Your task to perform on an android device: Go to network settings Image 0: 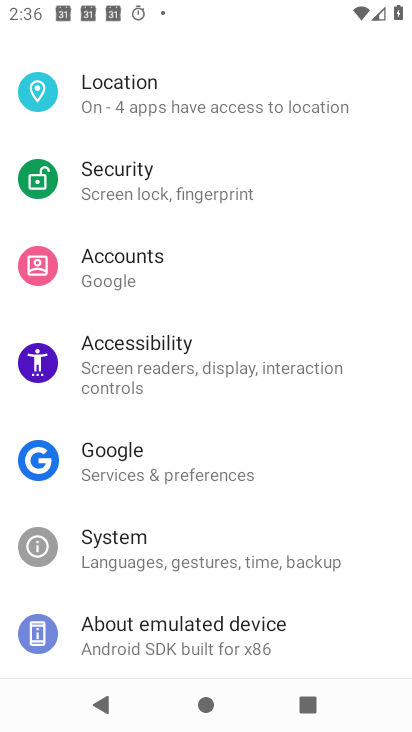
Step 0: drag from (122, 609) to (262, 87)
Your task to perform on an android device: Go to network settings Image 1: 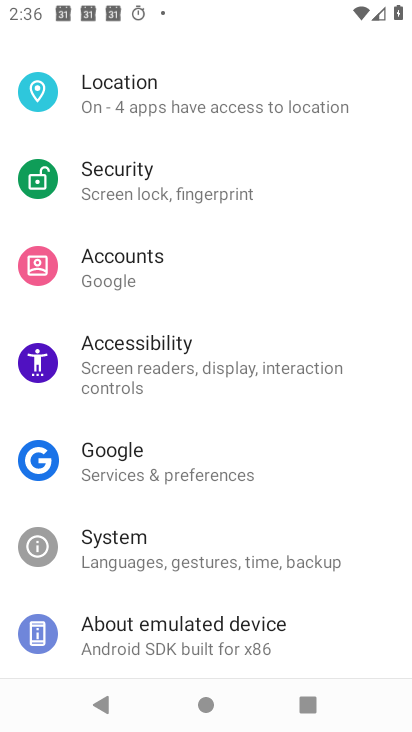
Step 1: drag from (172, 253) to (240, 721)
Your task to perform on an android device: Go to network settings Image 2: 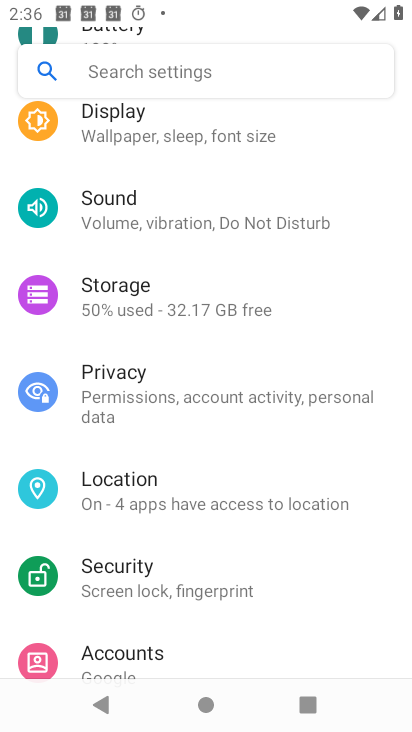
Step 2: drag from (165, 244) to (192, 724)
Your task to perform on an android device: Go to network settings Image 3: 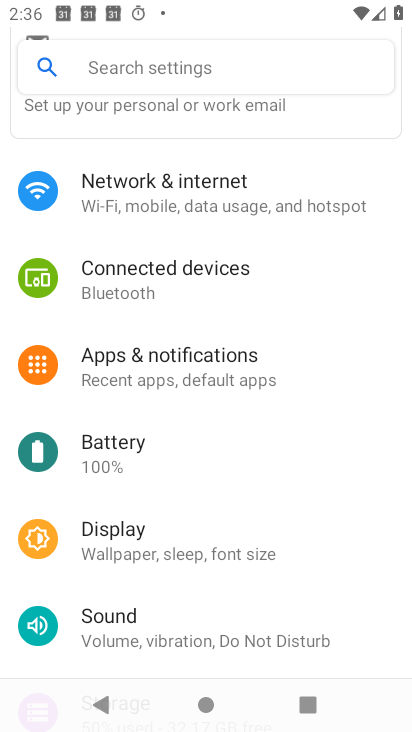
Step 3: drag from (212, 179) to (219, 701)
Your task to perform on an android device: Go to network settings Image 4: 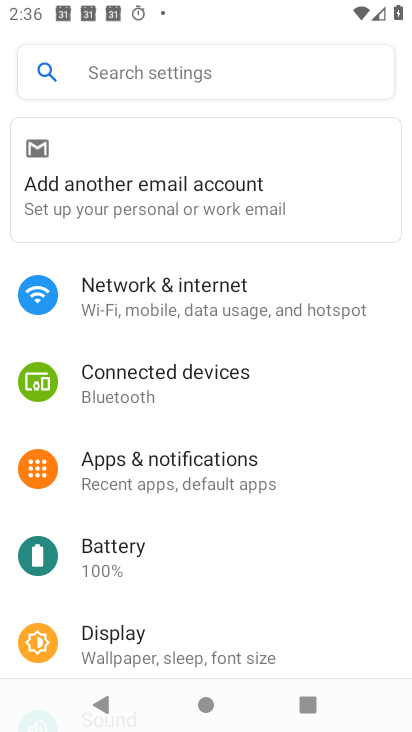
Step 4: click (97, 288)
Your task to perform on an android device: Go to network settings Image 5: 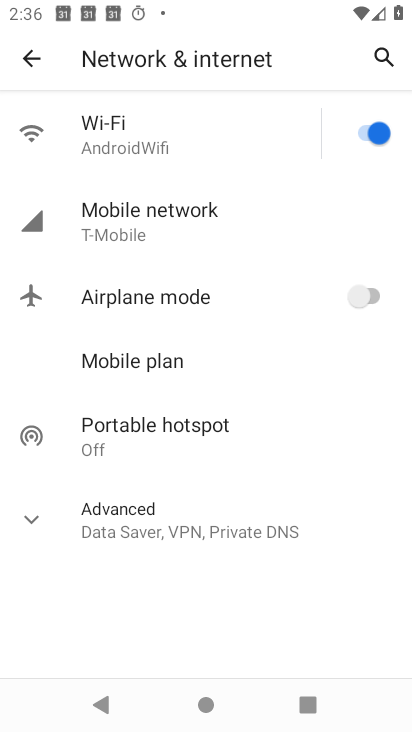
Step 5: task complete